Your task to perform on an android device: change your default location settings in chrome Image 0: 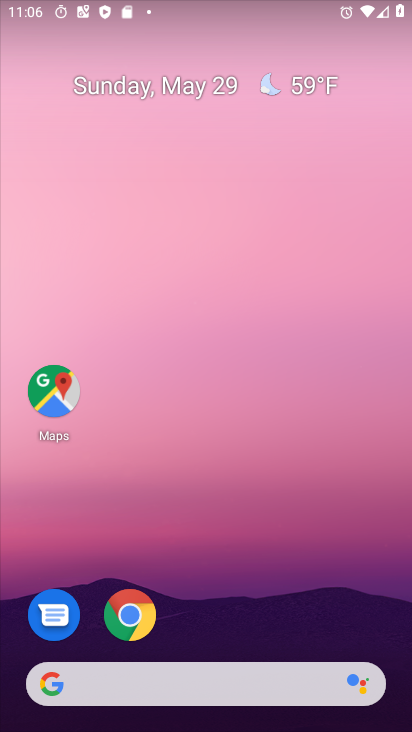
Step 0: drag from (268, 596) to (278, 100)
Your task to perform on an android device: change your default location settings in chrome Image 1: 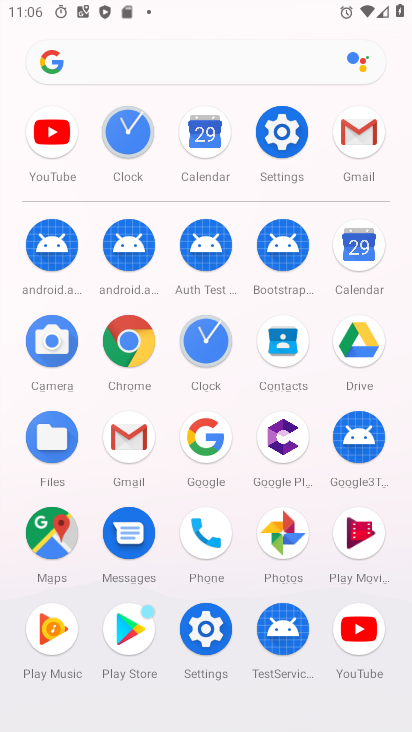
Step 1: click (133, 339)
Your task to perform on an android device: change your default location settings in chrome Image 2: 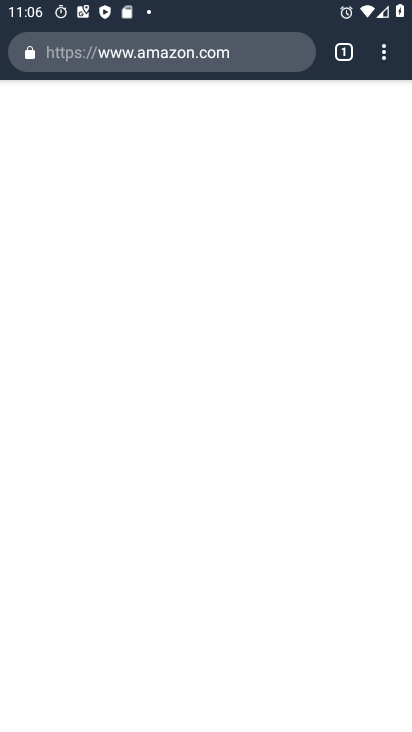
Step 2: click (380, 47)
Your task to perform on an android device: change your default location settings in chrome Image 3: 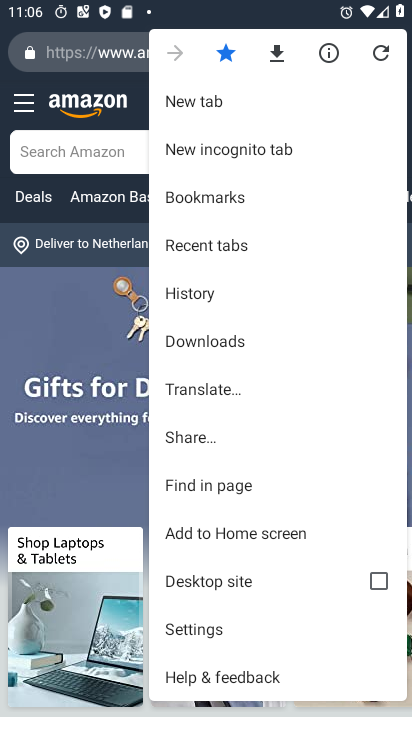
Step 3: click (205, 623)
Your task to perform on an android device: change your default location settings in chrome Image 4: 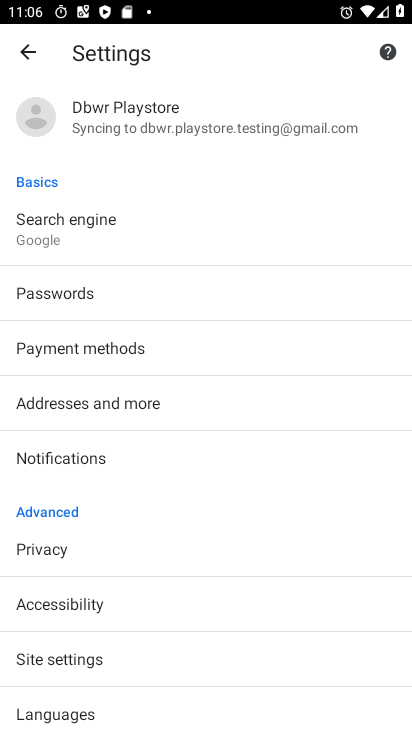
Step 4: drag from (168, 656) to (176, 452)
Your task to perform on an android device: change your default location settings in chrome Image 5: 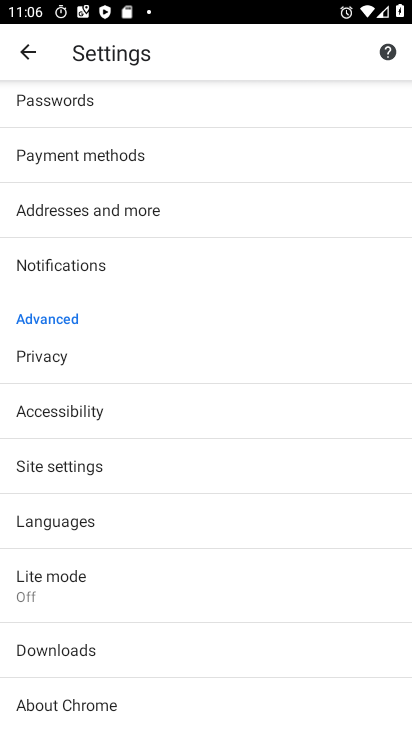
Step 5: click (77, 475)
Your task to perform on an android device: change your default location settings in chrome Image 6: 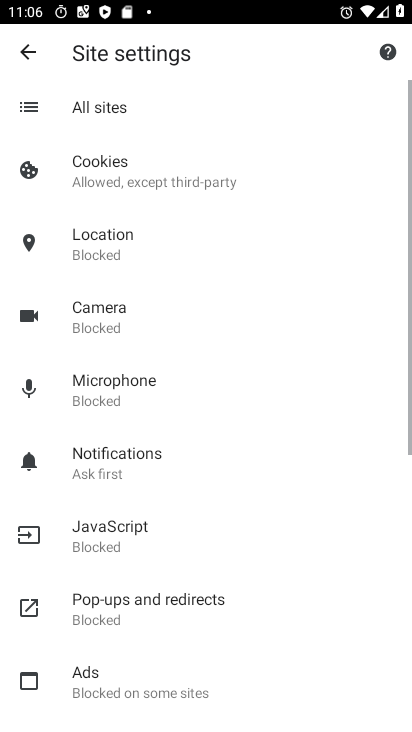
Step 6: click (164, 249)
Your task to perform on an android device: change your default location settings in chrome Image 7: 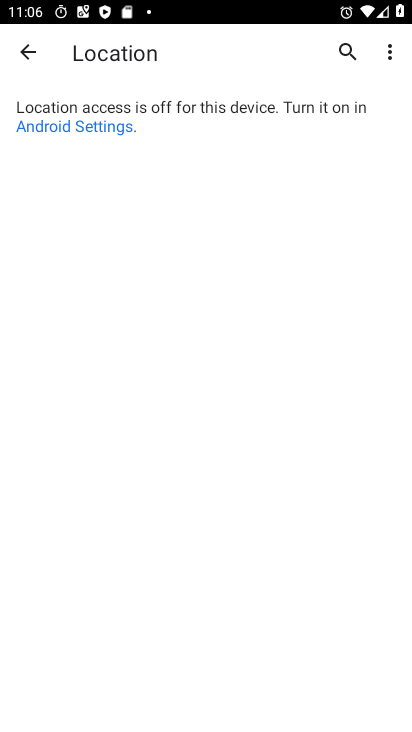
Step 7: click (49, 117)
Your task to perform on an android device: change your default location settings in chrome Image 8: 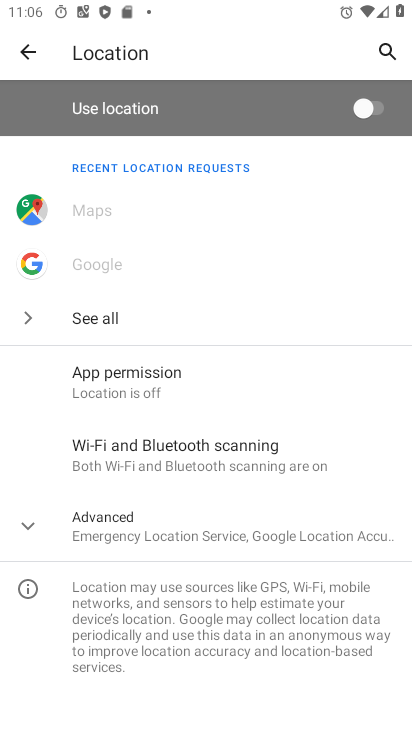
Step 8: click (367, 102)
Your task to perform on an android device: change your default location settings in chrome Image 9: 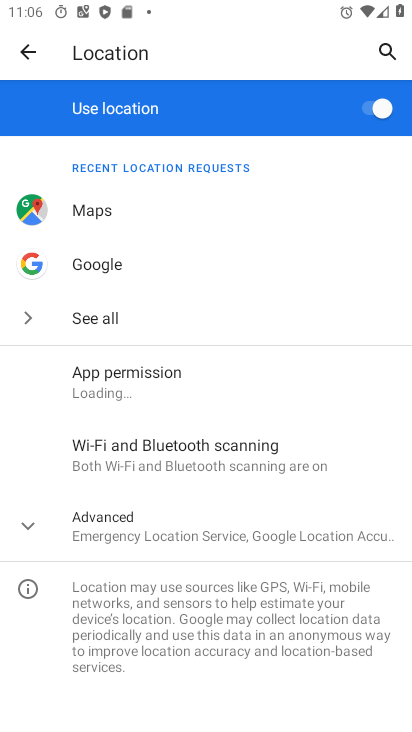
Step 9: task complete